Your task to perform on an android device: Open ESPN.com Image 0: 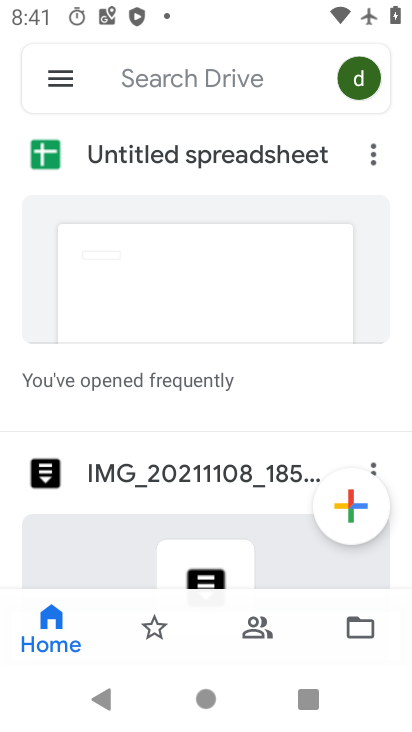
Step 0: press home button
Your task to perform on an android device: Open ESPN.com Image 1: 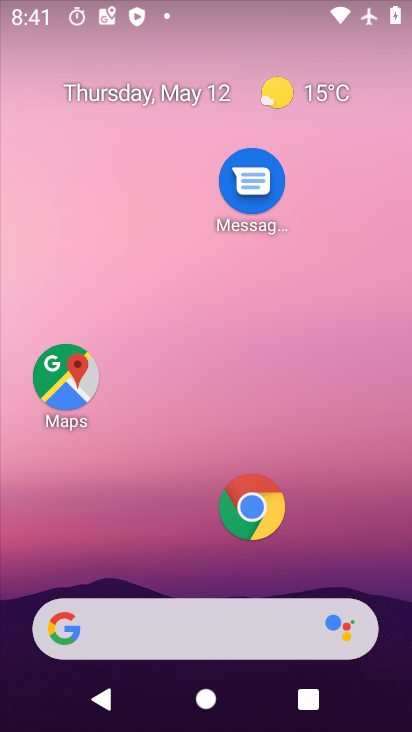
Step 1: click (246, 503)
Your task to perform on an android device: Open ESPN.com Image 2: 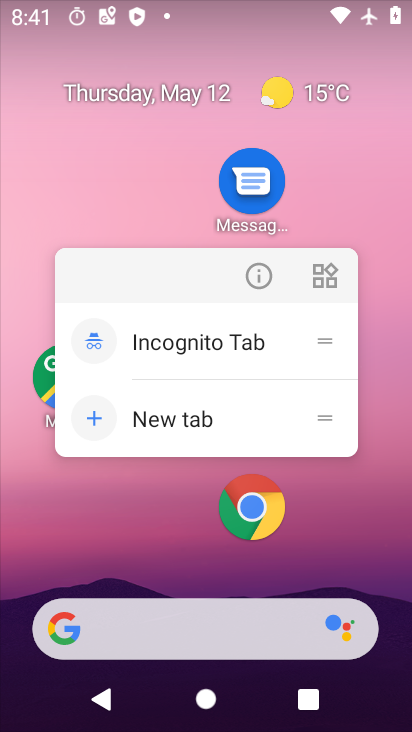
Step 2: click (246, 502)
Your task to perform on an android device: Open ESPN.com Image 3: 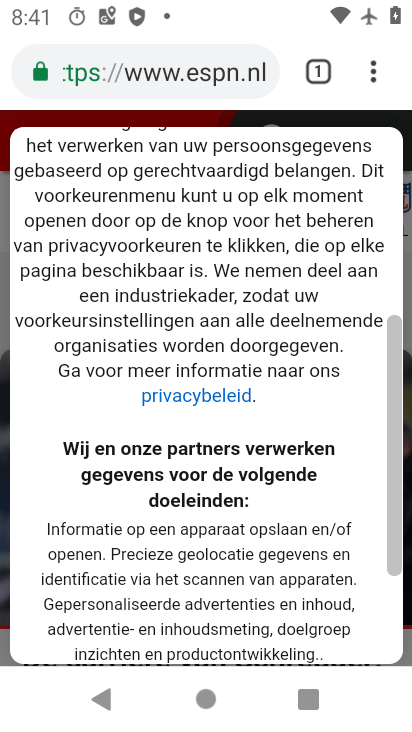
Step 3: task complete